Your task to perform on an android device: clear history in the chrome app Image 0: 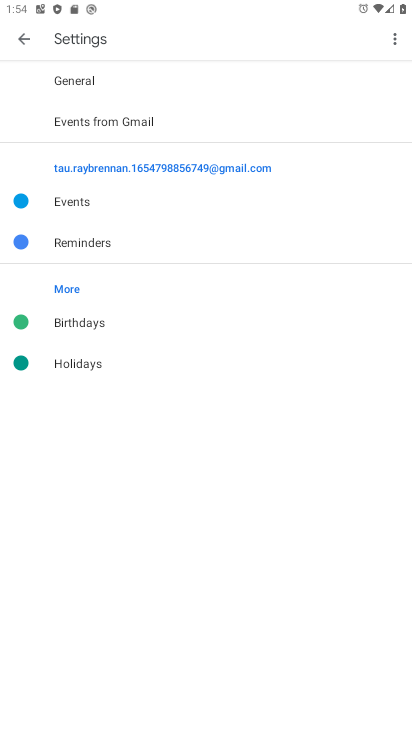
Step 0: press home button
Your task to perform on an android device: clear history in the chrome app Image 1: 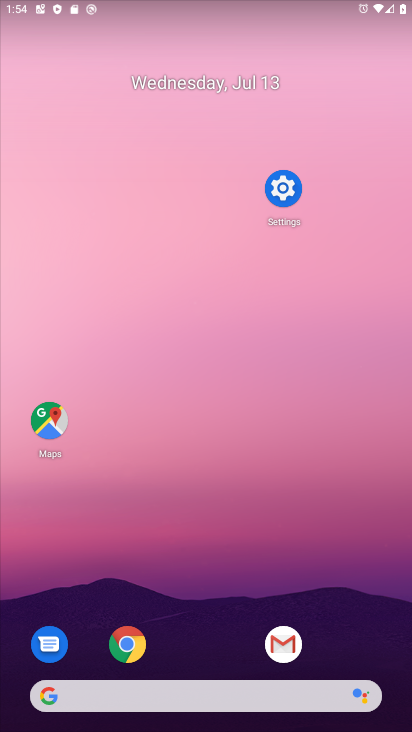
Step 1: click (141, 641)
Your task to perform on an android device: clear history in the chrome app Image 2: 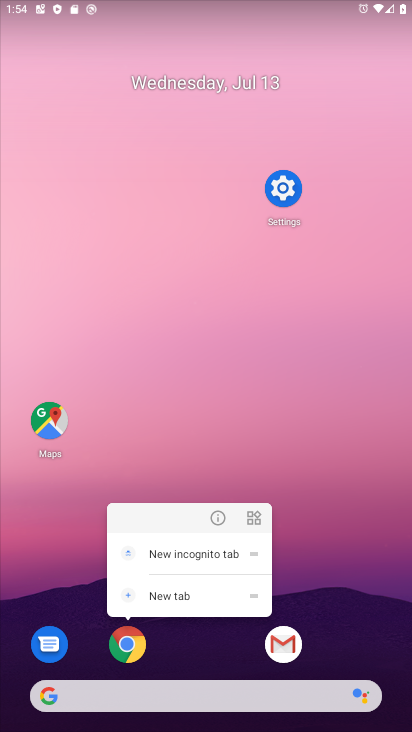
Step 2: click (138, 642)
Your task to perform on an android device: clear history in the chrome app Image 3: 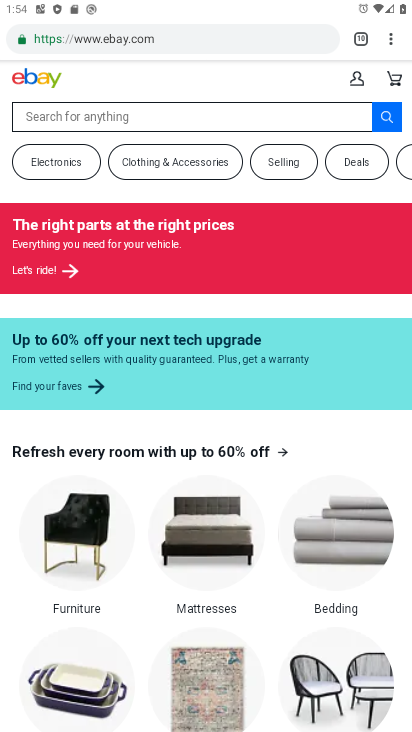
Step 3: click (381, 56)
Your task to perform on an android device: clear history in the chrome app Image 4: 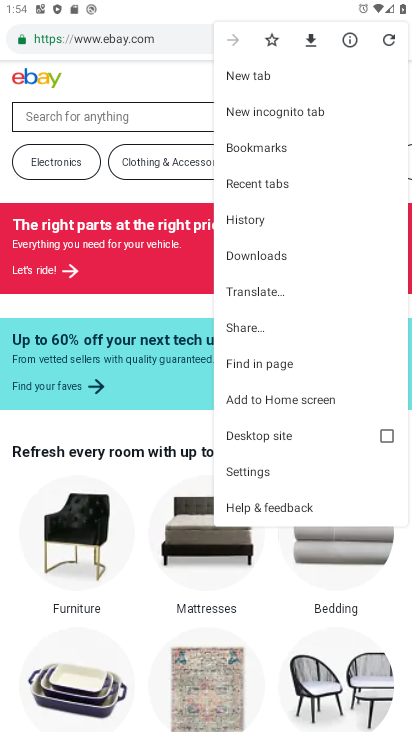
Step 4: click (264, 227)
Your task to perform on an android device: clear history in the chrome app Image 5: 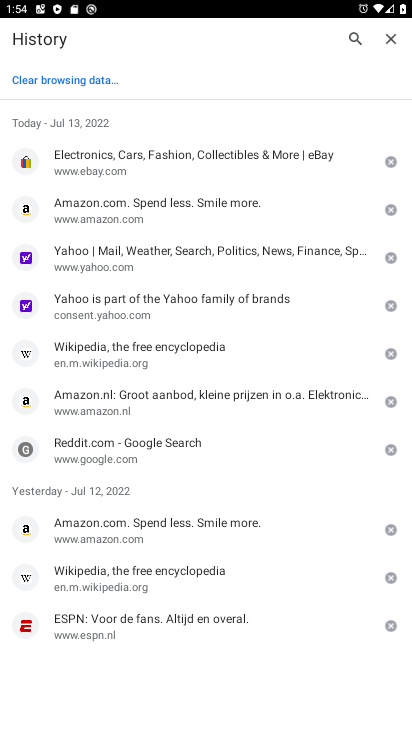
Step 5: click (90, 89)
Your task to perform on an android device: clear history in the chrome app Image 6: 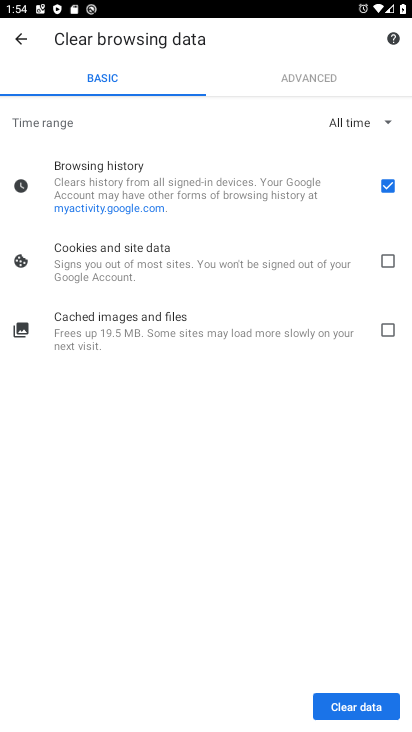
Step 6: click (347, 709)
Your task to perform on an android device: clear history in the chrome app Image 7: 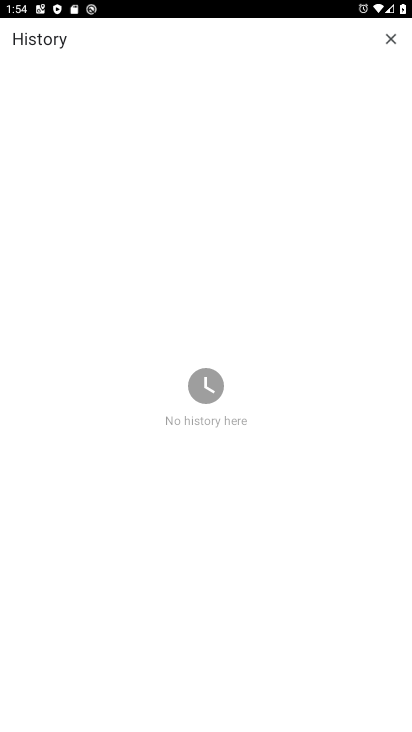
Step 7: task complete